Your task to perform on an android device: When is my next meeting? Image 0: 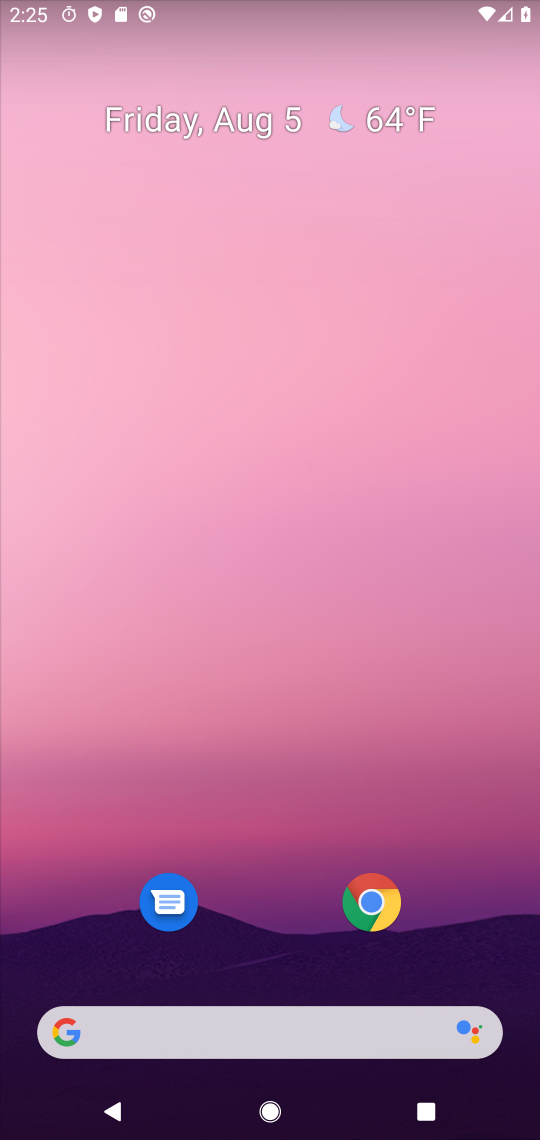
Step 0: drag from (334, 992) to (347, 391)
Your task to perform on an android device: When is my next meeting? Image 1: 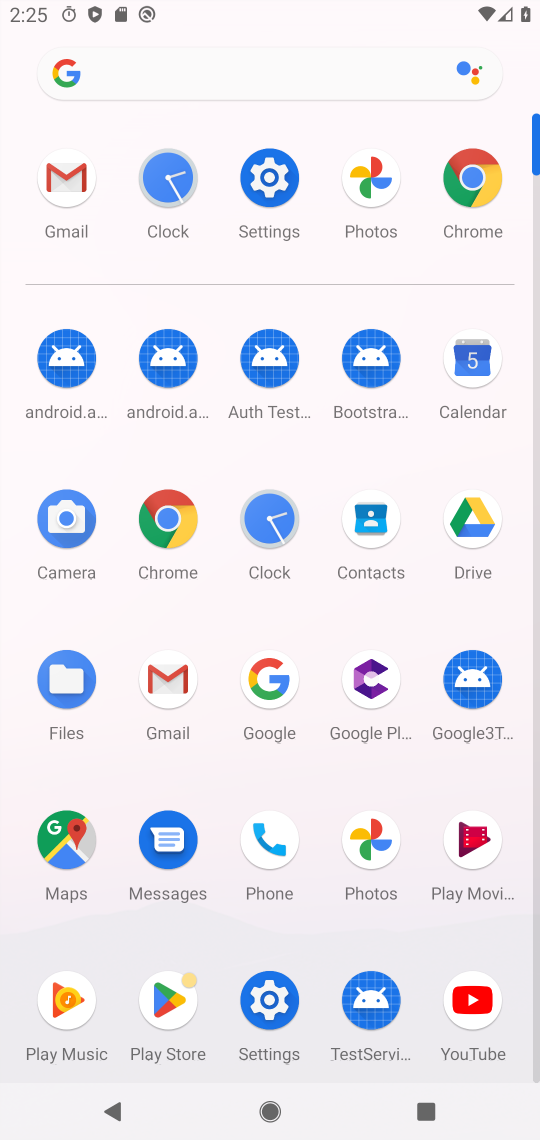
Step 1: click (462, 374)
Your task to perform on an android device: When is my next meeting? Image 2: 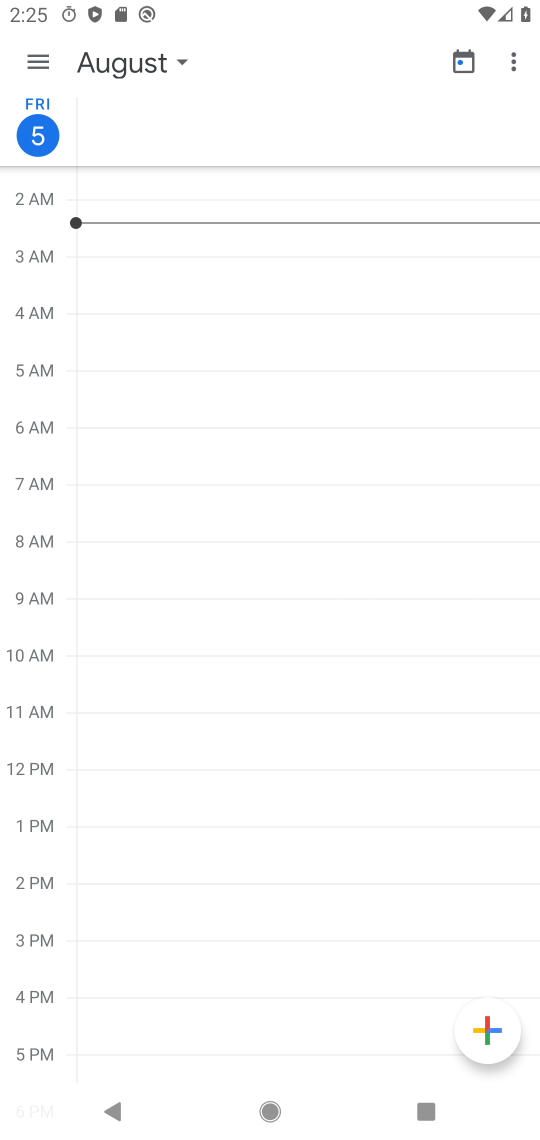
Step 2: click (44, 71)
Your task to perform on an android device: When is my next meeting? Image 3: 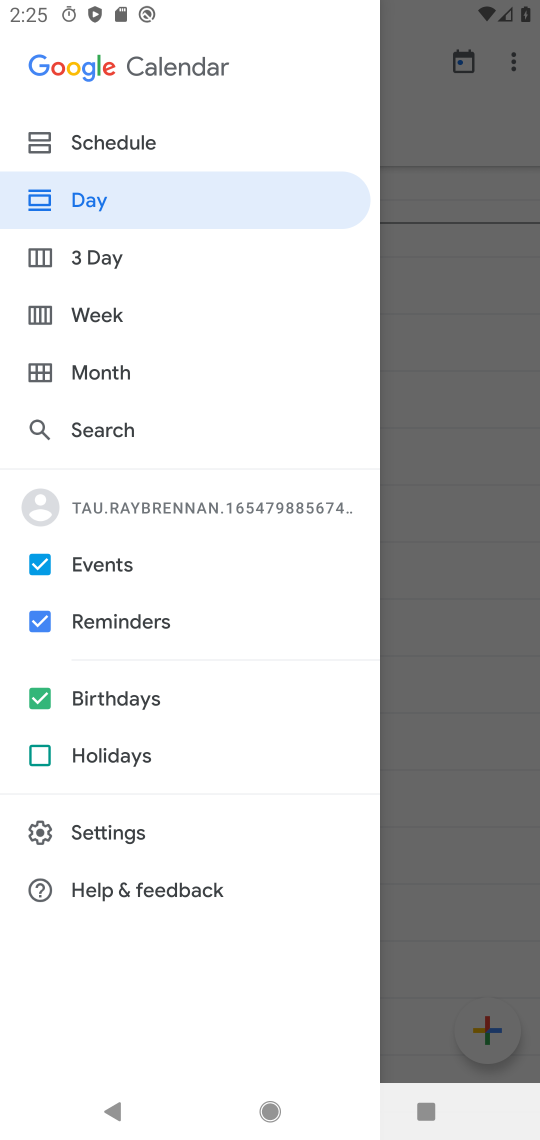
Step 3: click (142, 158)
Your task to perform on an android device: When is my next meeting? Image 4: 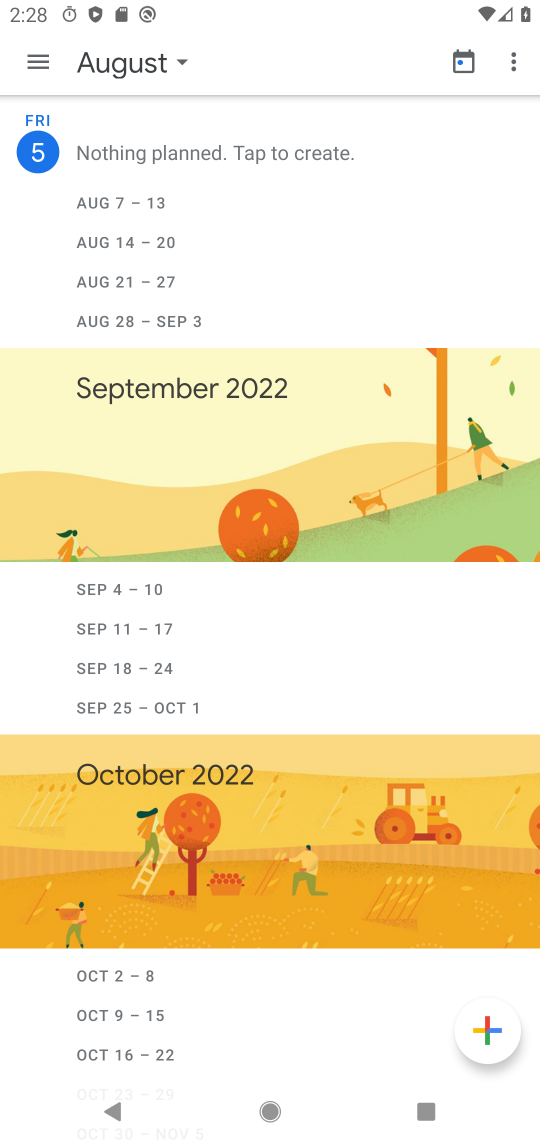
Step 4: task complete